Your task to perform on an android device: turn off smart reply in the gmail app Image 0: 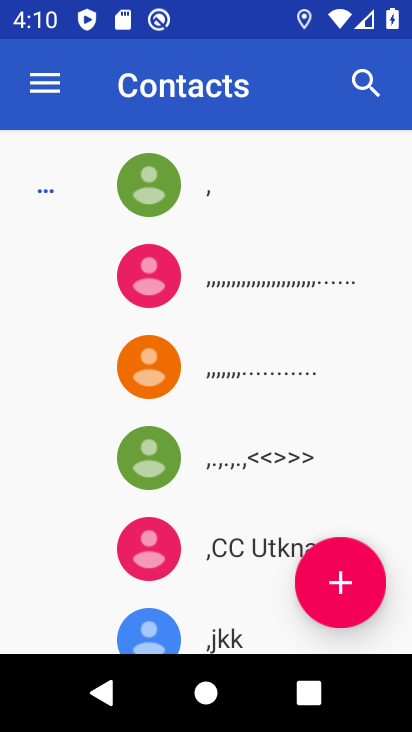
Step 0: press home button
Your task to perform on an android device: turn off smart reply in the gmail app Image 1: 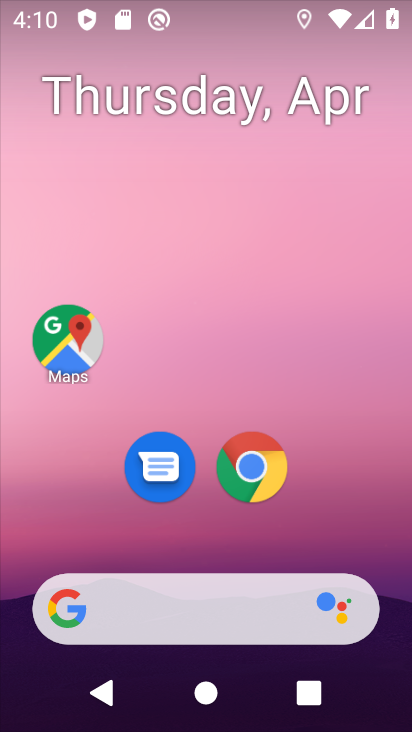
Step 1: drag from (244, 543) to (294, 0)
Your task to perform on an android device: turn off smart reply in the gmail app Image 2: 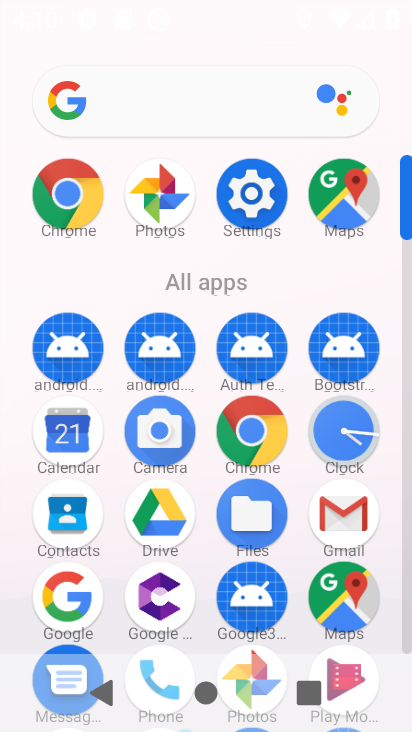
Step 2: click (344, 508)
Your task to perform on an android device: turn off smart reply in the gmail app Image 3: 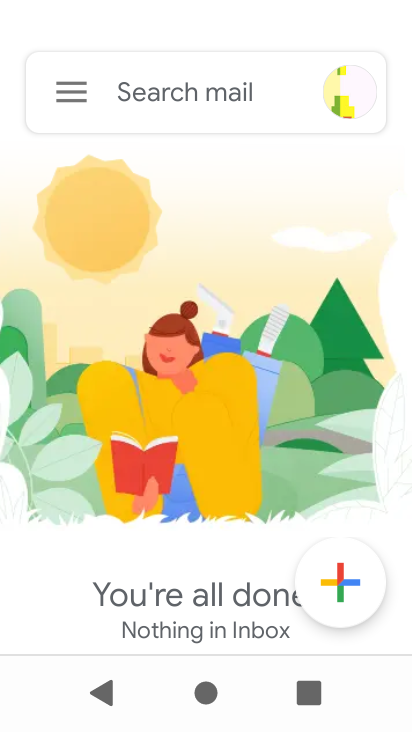
Step 3: click (68, 98)
Your task to perform on an android device: turn off smart reply in the gmail app Image 4: 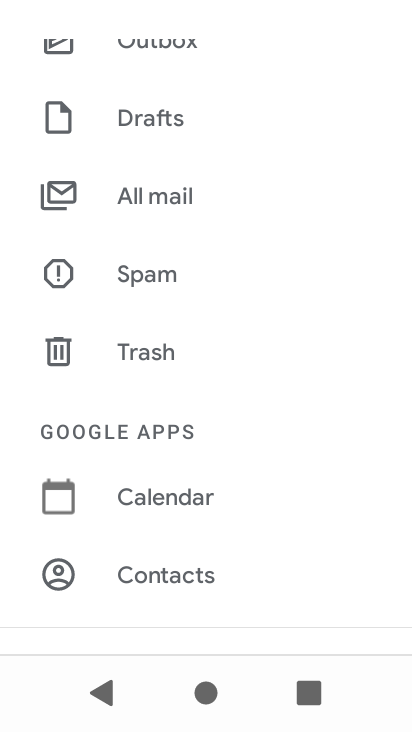
Step 4: drag from (136, 598) to (180, 279)
Your task to perform on an android device: turn off smart reply in the gmail app Image 5: 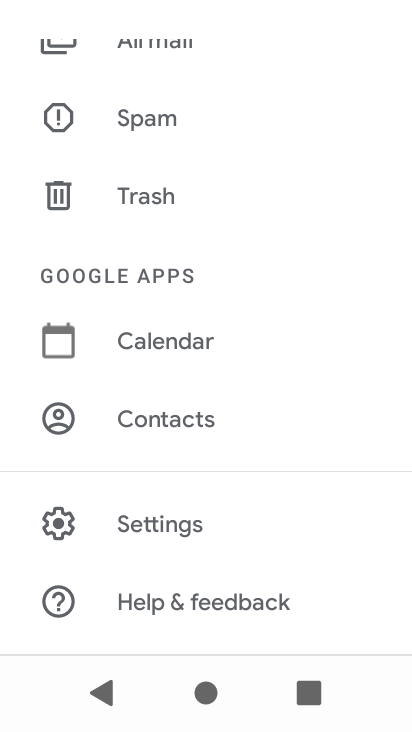
Step 5: click (136, 525)
Your task to perform on an android device: turn off smart reply in the gmail app Image 6: 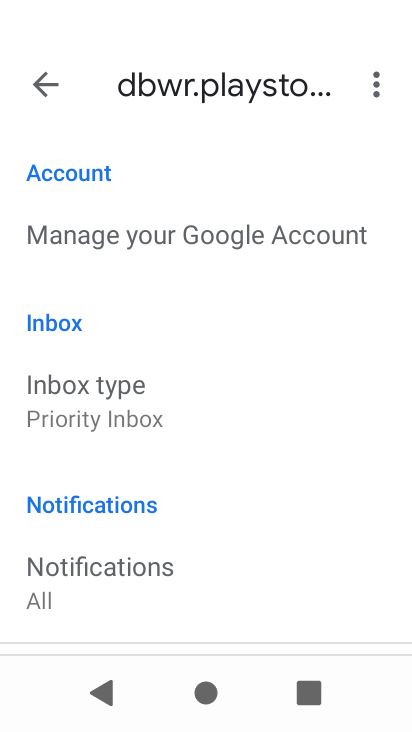
Step 6: drag from (137, 520) to (249, 63)
Your task to perform on an android device: turn off smart reply in the gmail app Image 7: 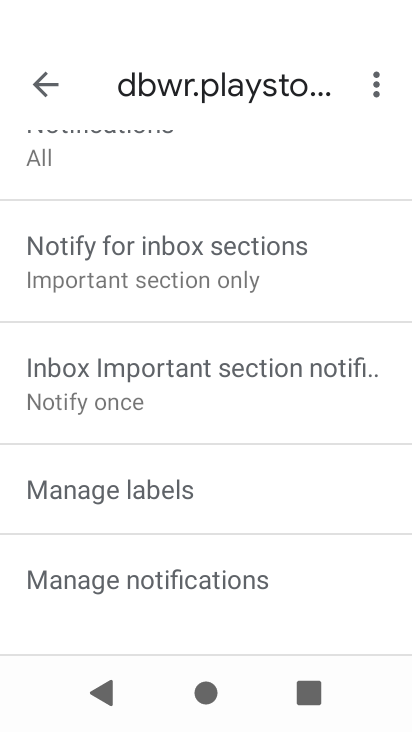
Step 7: drag from (215, 530) to (223, 280)
Your task to perform on an android device: turn off smart reply in the gmail app Image 8: 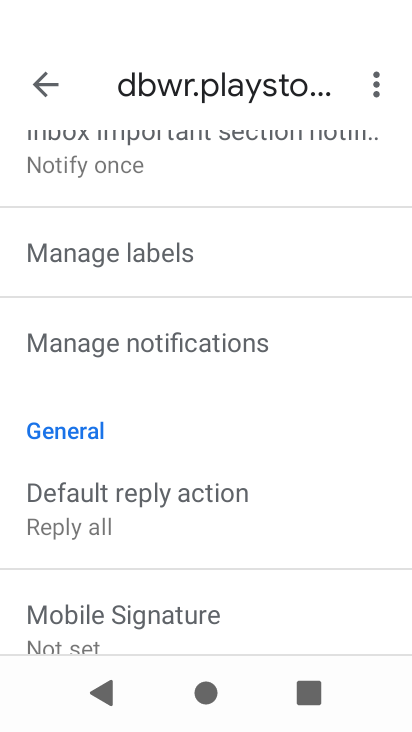
Step 8: drag from (115, 566) to (209, 212)
Your task to perform on an android device: turn off smart reply in the gmail app Image 9: 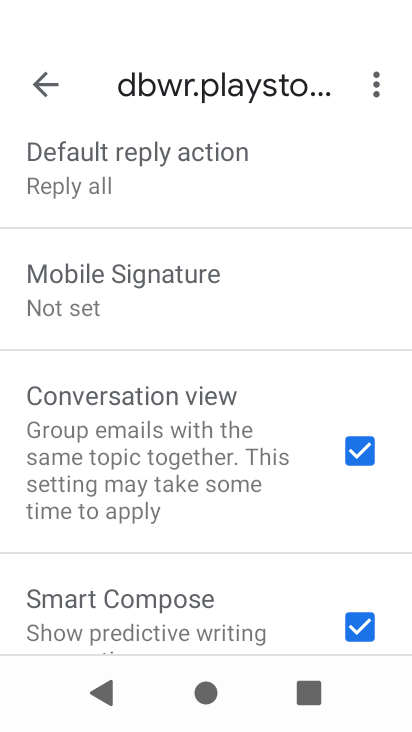
Step 9: drag from (183, 509) to (215, 315)
Your task to perform on an android device: turn off smart reply in the gmail app Image 10: 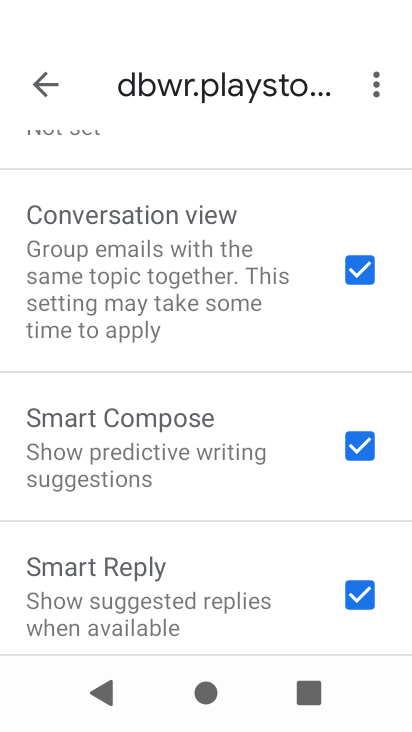
Step 10: click (353, 591)
Your task to perform on an android device: turn off smart reply in the gmail app Image 11: 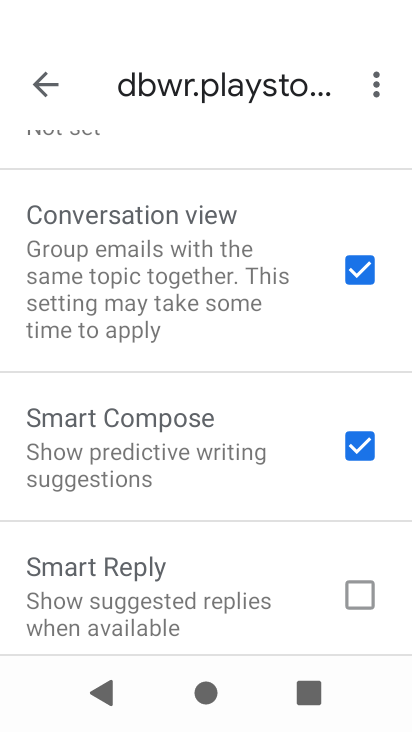
Step 11: task complete